Your task to perform on an android device: add a contact Image 0: 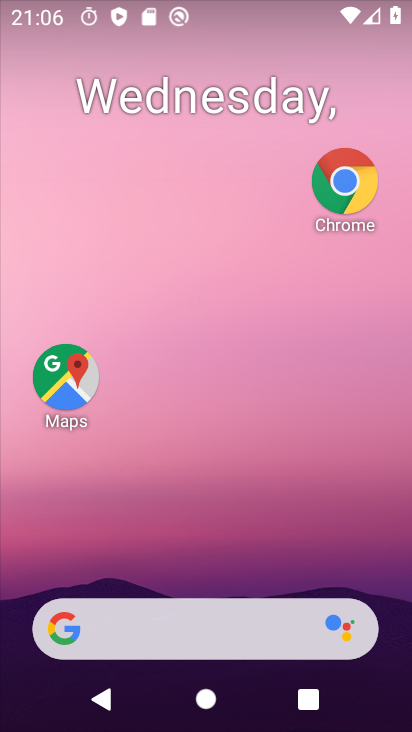
Step 0: drag from (234, 661) to (346, 167)
Your task to perform on an android device: add a contact Image 1: 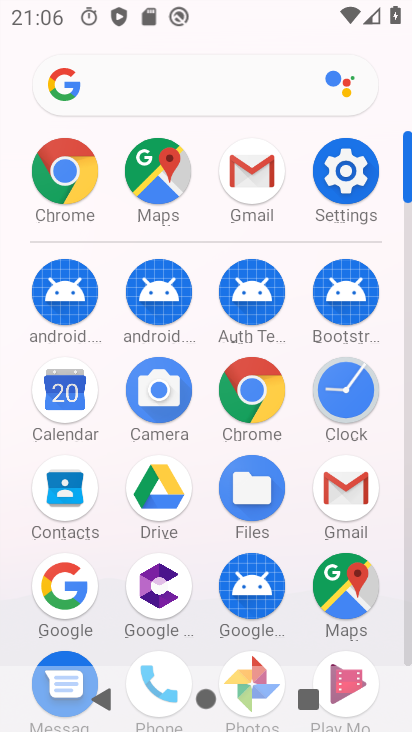
Step 1: drag from (212, 509) to (247, 406)
Your task to perform on an android device: add a contact Image 2: 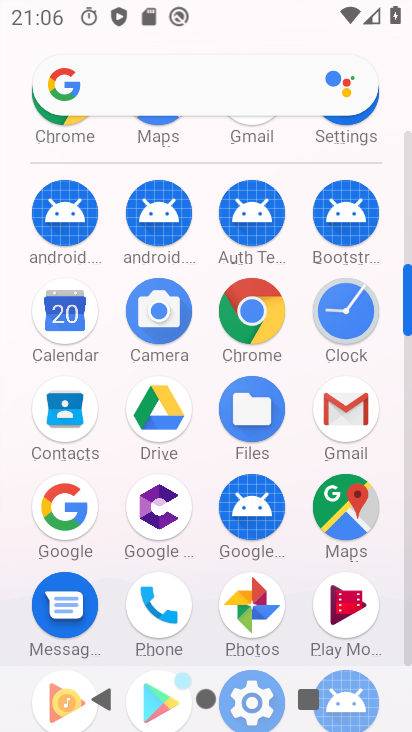
Step 2: click (144, 580)
Your task to perform on an android device: add a contact Image 3: 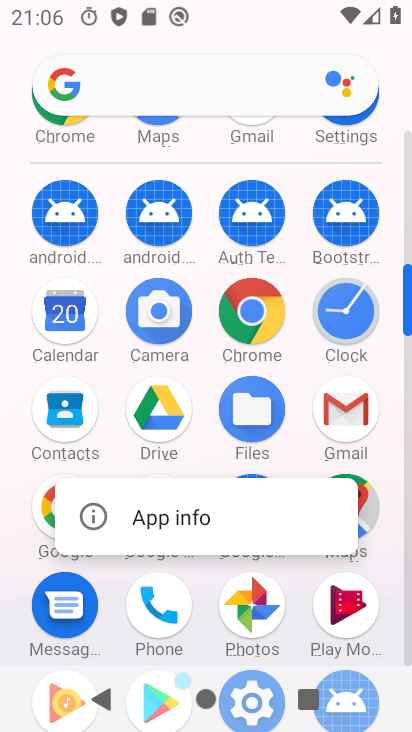
Step 3: click (159, 576)
Your task to perform on an android device: add a contact Image 4: 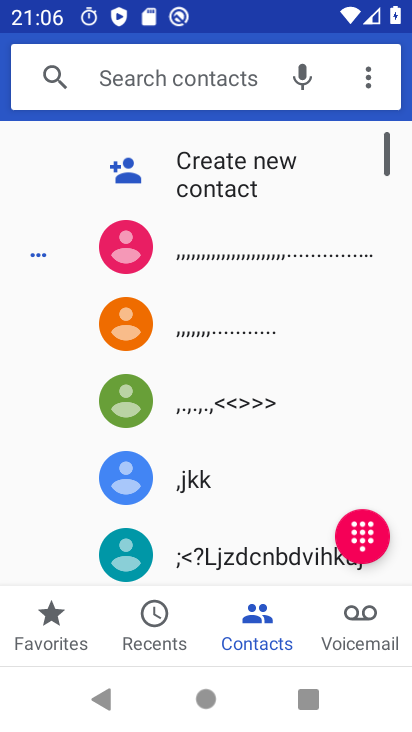
Step 4: click (198, 168)
Your task to perform on an android device: add a contact Image 5: 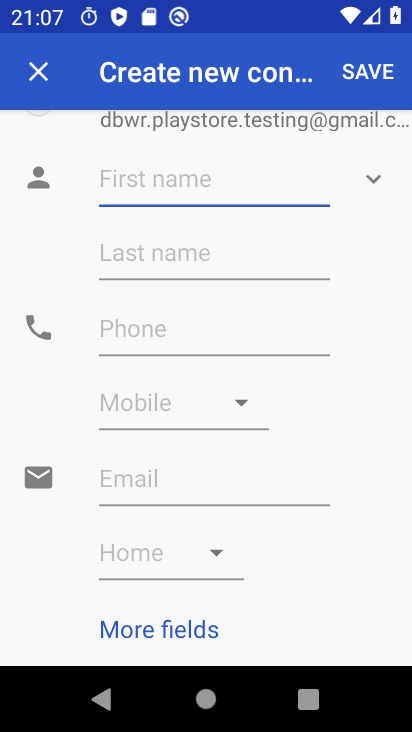
Step 5: click (152, 194)
Your task to perform on an android device: add a contact Image 6: 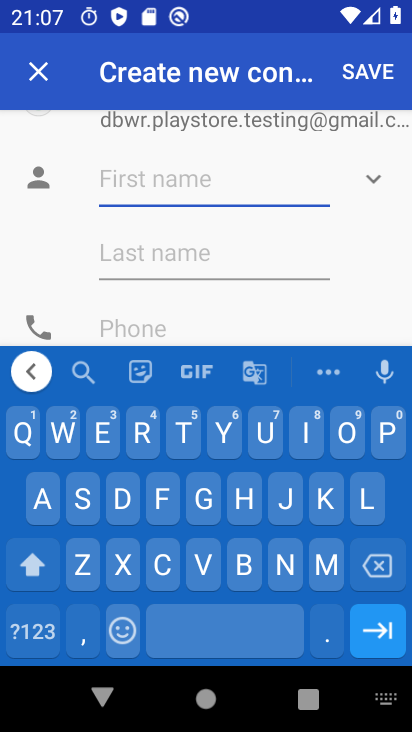
Step 6: click (388, 445)
Your task to perform on an android device: add a contact Image 7: 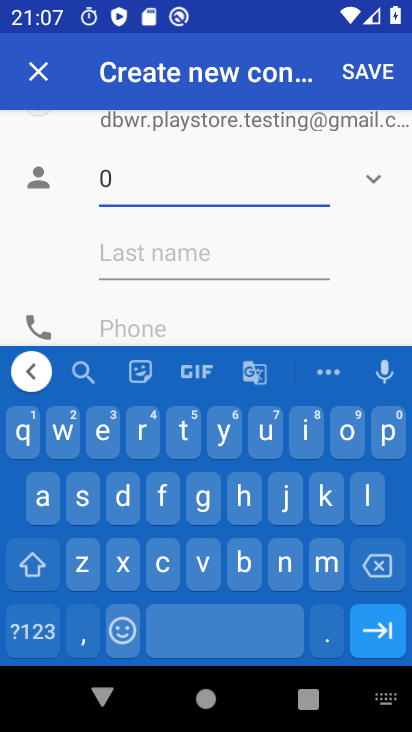
Step 7: click (374, 577)
Your task to perform on an android device: add a contact Image 8: 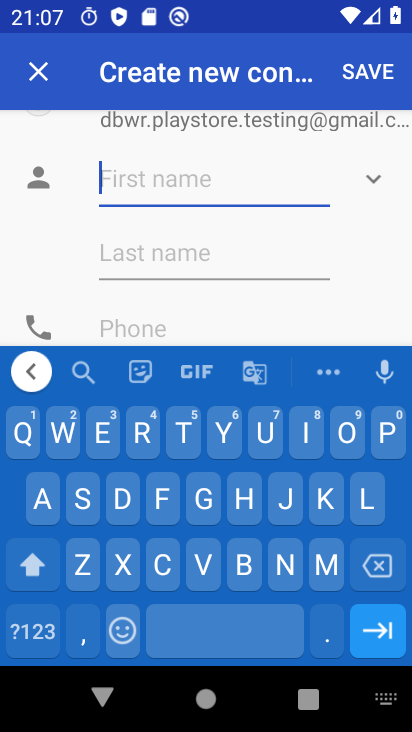
Step 8: click (389, 448)
Your task to perform on an android device: add a contact Image 9: 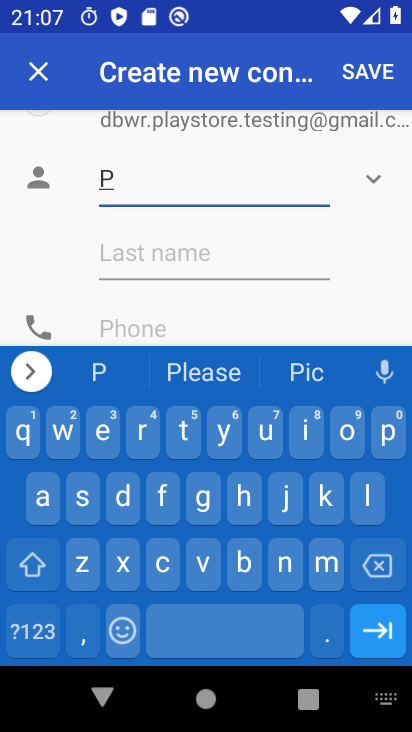
Step 9: drag from (137, 437) to (45, 501)
Your task to perform on an android device: add a contact Image 10: 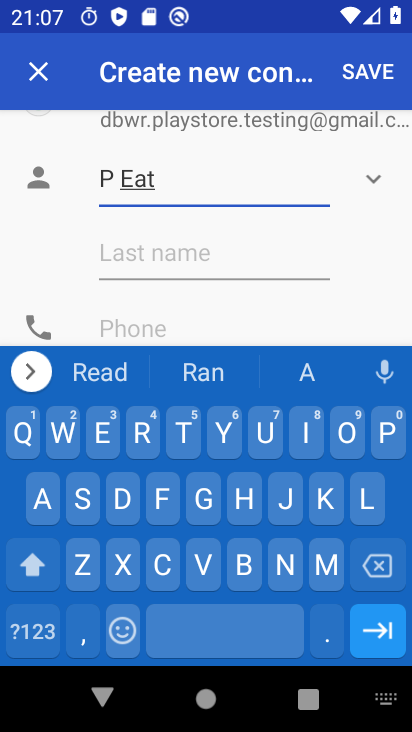
Step 10: click (184, 312)
Your task to perform on an android device: add a contact Image 11: 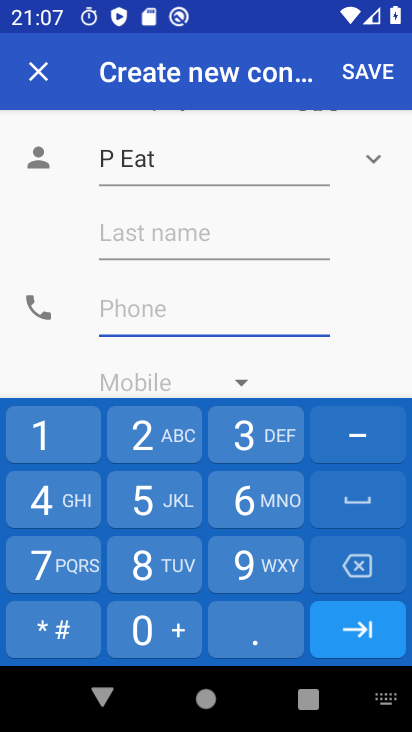
Step 11: click (242, 575)
Your task to perform on an android device: add a contact Image 12: 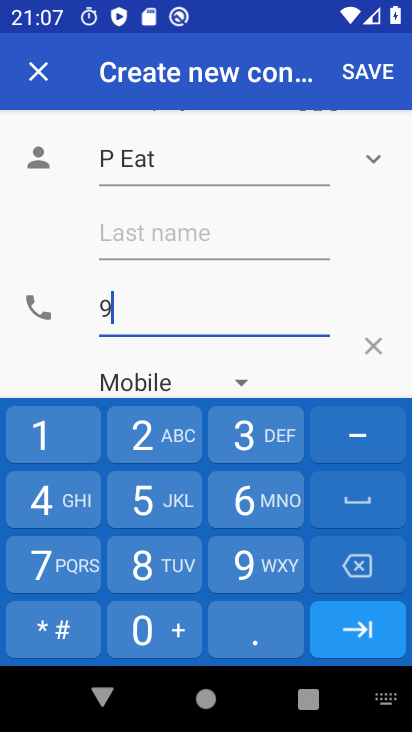
Step 12: click (145, 576)
Your task to perform on an android device: add a contact Image 13: 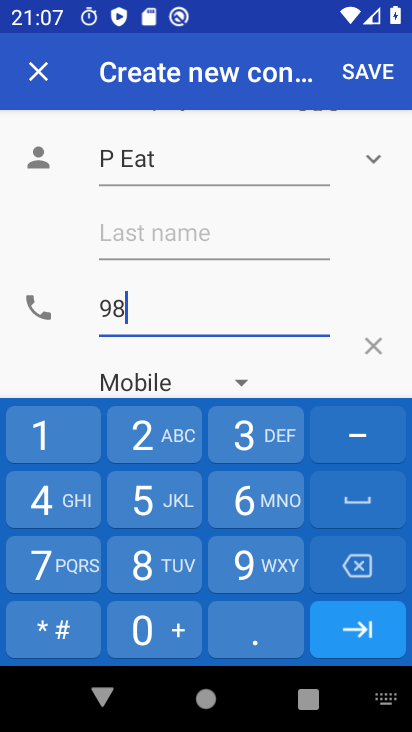
Step 13: click (252, 448)
Your task to perform on an android device: add a contact Image 14: 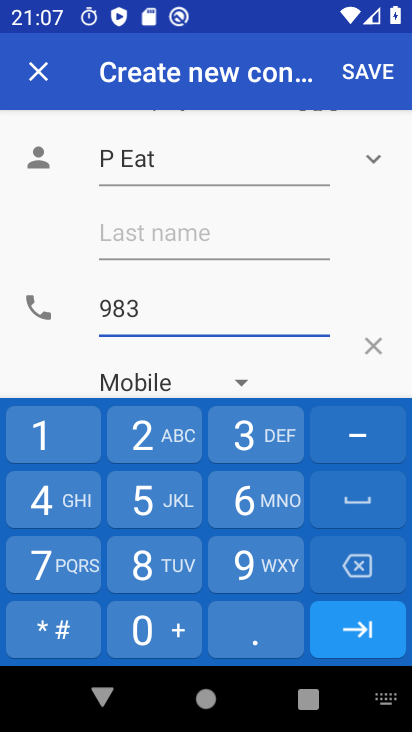
Step 14: click (248, 552)
Your task to perform on an android device: add a contact Image 15: 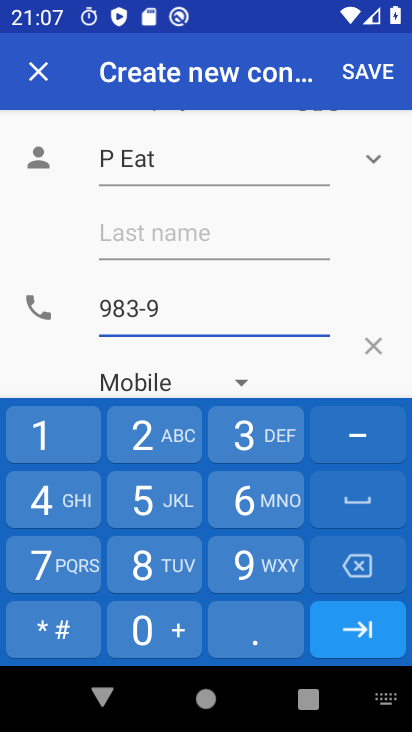
Step 15: click (237, 522)
Your task to perform on an android device: add a contact Image 16: 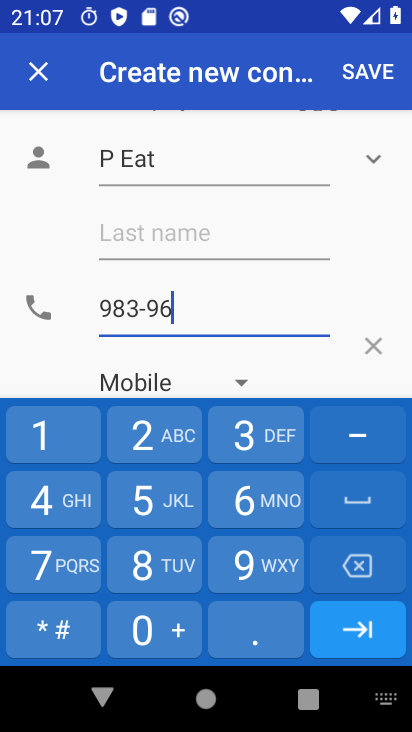
Step 16: click (174, 498)
Your task to perform on an android device: add a contact Image 17: 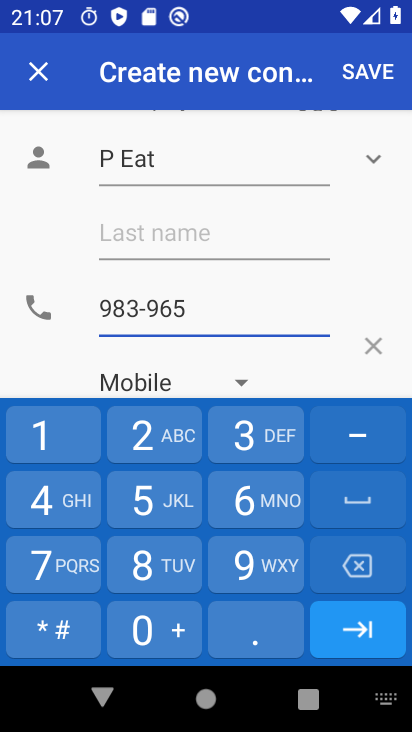
Step 17: click (155, 430)
Your task to perform on an android device: add a contact Image 18: 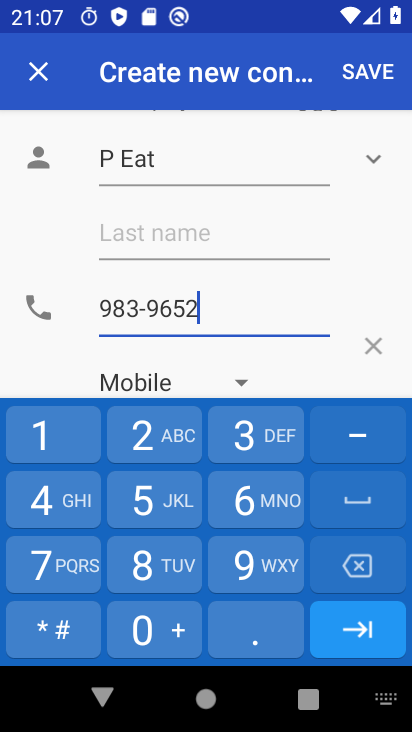
Step 18: click (60, 434)
Your task to perform on an android device: add a contact Image 19: 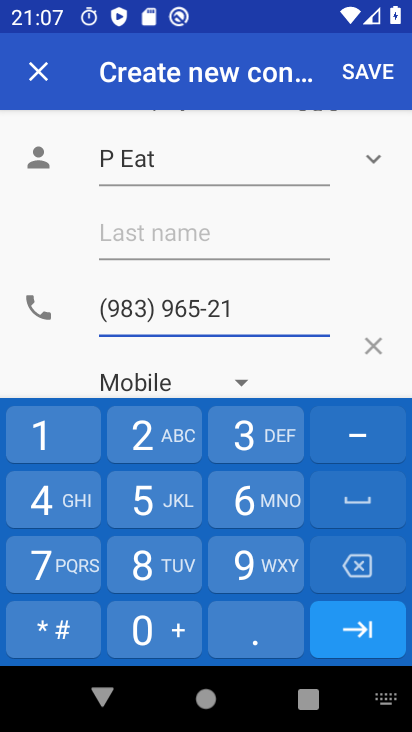
Step 19: click (92, 512)
Your task to perform on an android device: add a contact Image 20: 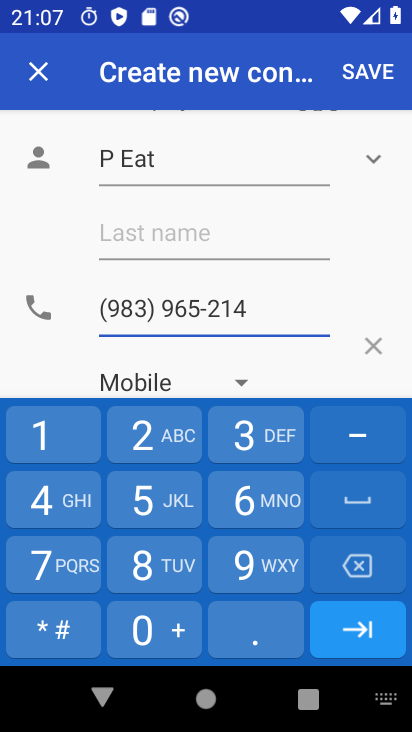
Step 20: click (120, 524)
Your task to perform on an android device: add a contact Image 21: 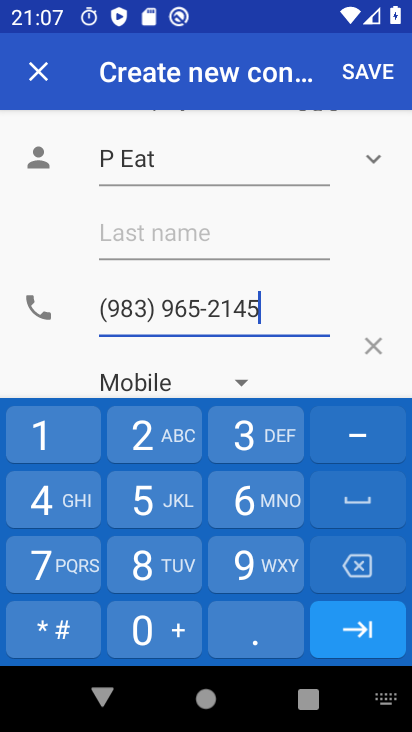
Step 21: click (356, 82)
Your task to perform on an android device: add a contact Image 22: 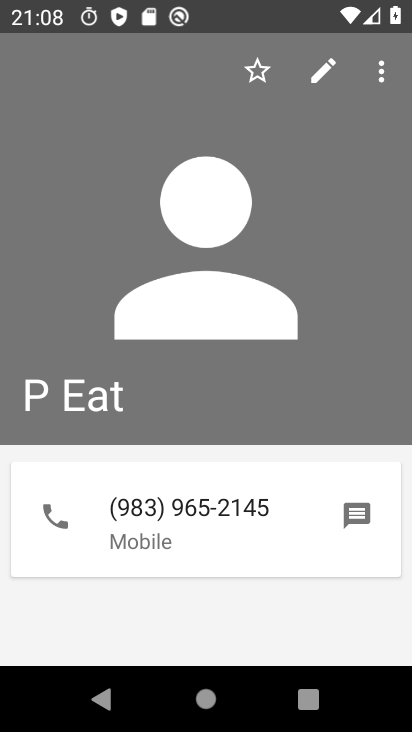
Step 22: task complete